Your task to perform on an android device: toggle airplane mode Image 0: 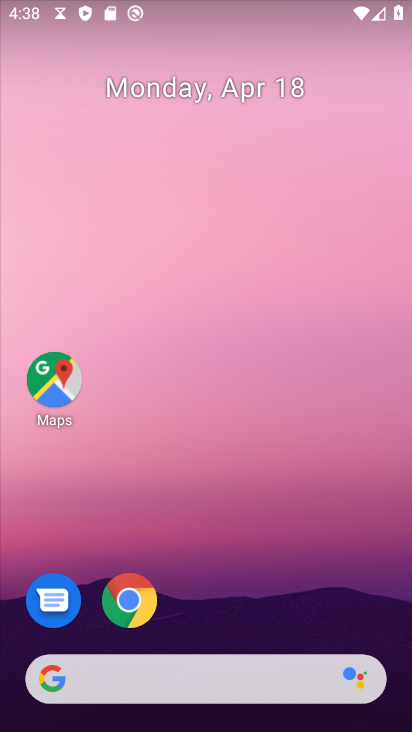
Step 0: drag from (240, 626) to (390, 15)
Your task to perform on an android device: toggle airplane mode Image 1: 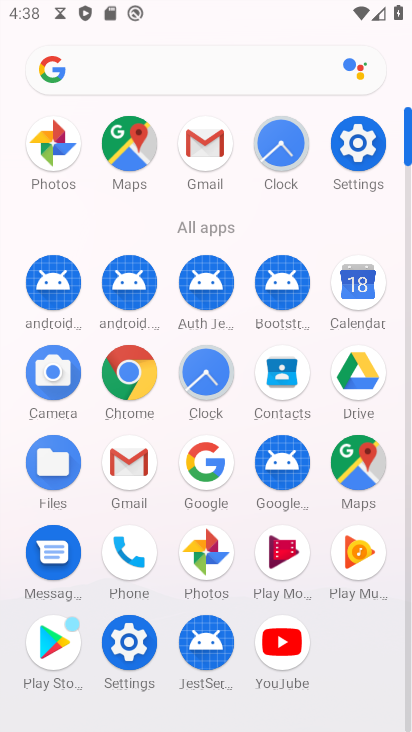
Step 1: click (351, 153)
Your task to perform on an android device: toggle airplane mode Image 2: 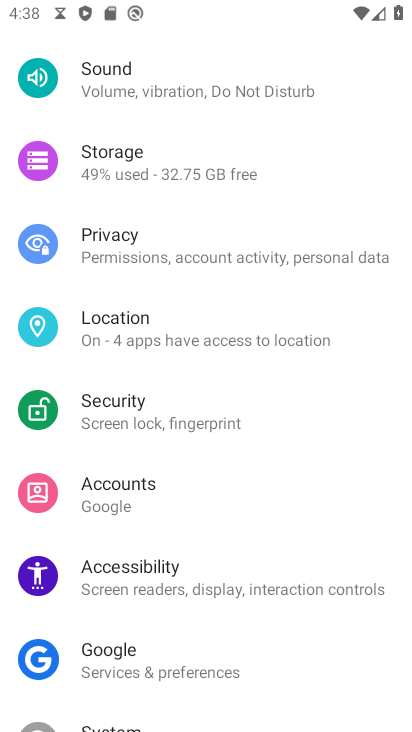
Step 2: drag from (251, 261) to (228, 424)
Your task to perform on an android device: toggle airplane mode Image 3: 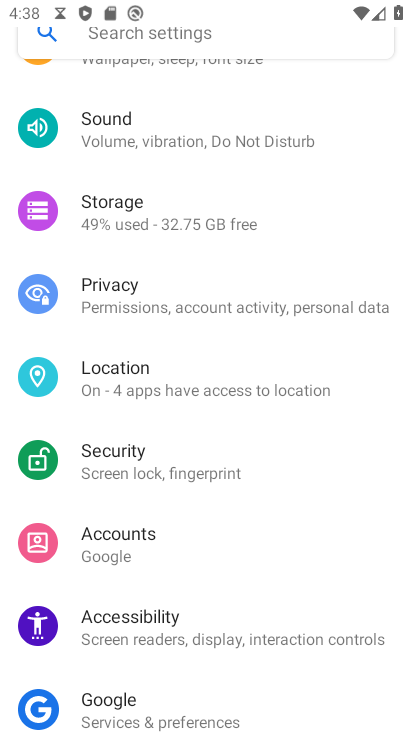
Step 3: drag from (276, 183) to (252, 597)
Your task to perform on an android device: toggle airplane mode Image 4: 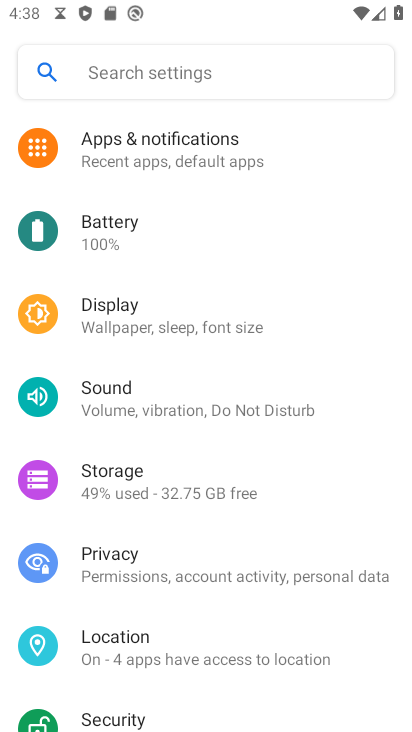
Step 4: drag from (234, 219) to (181, 730)
Your task to perform on an android device: toggle airplane mode Image 5: 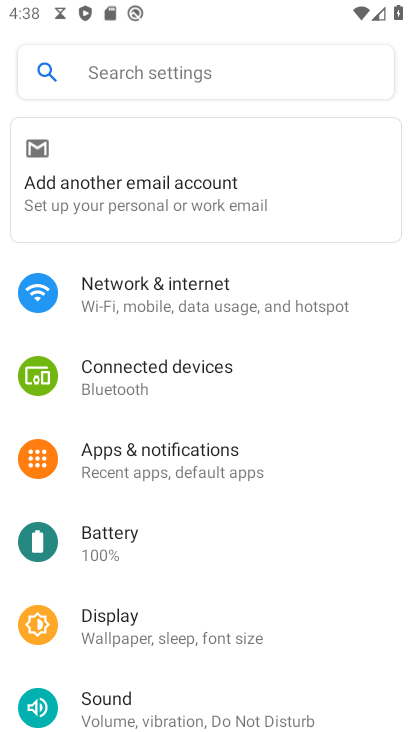
Step 5: click (191, 312)
Your task to perform on an android device: toggle airplane mode Image 6: 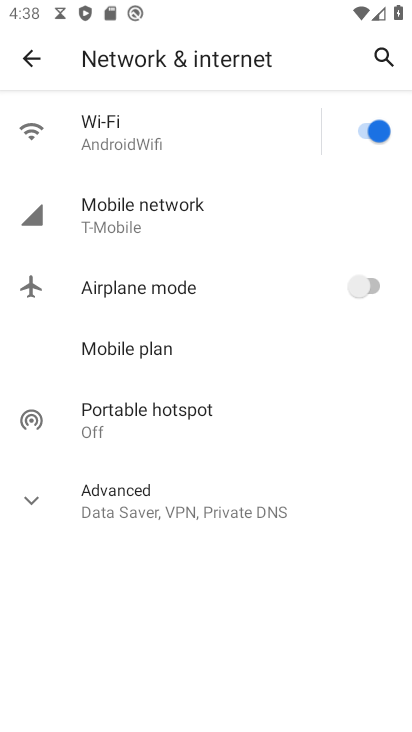
Step 6: click (371, 287)
Your task to perform on an android device: toggle airplane mode Image 7: 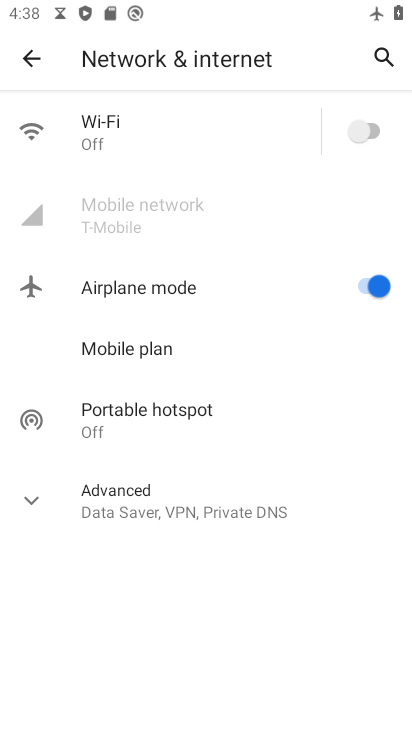
Step 7: task complete